Your task to perform on an android device: Go to battery settings Image 0: 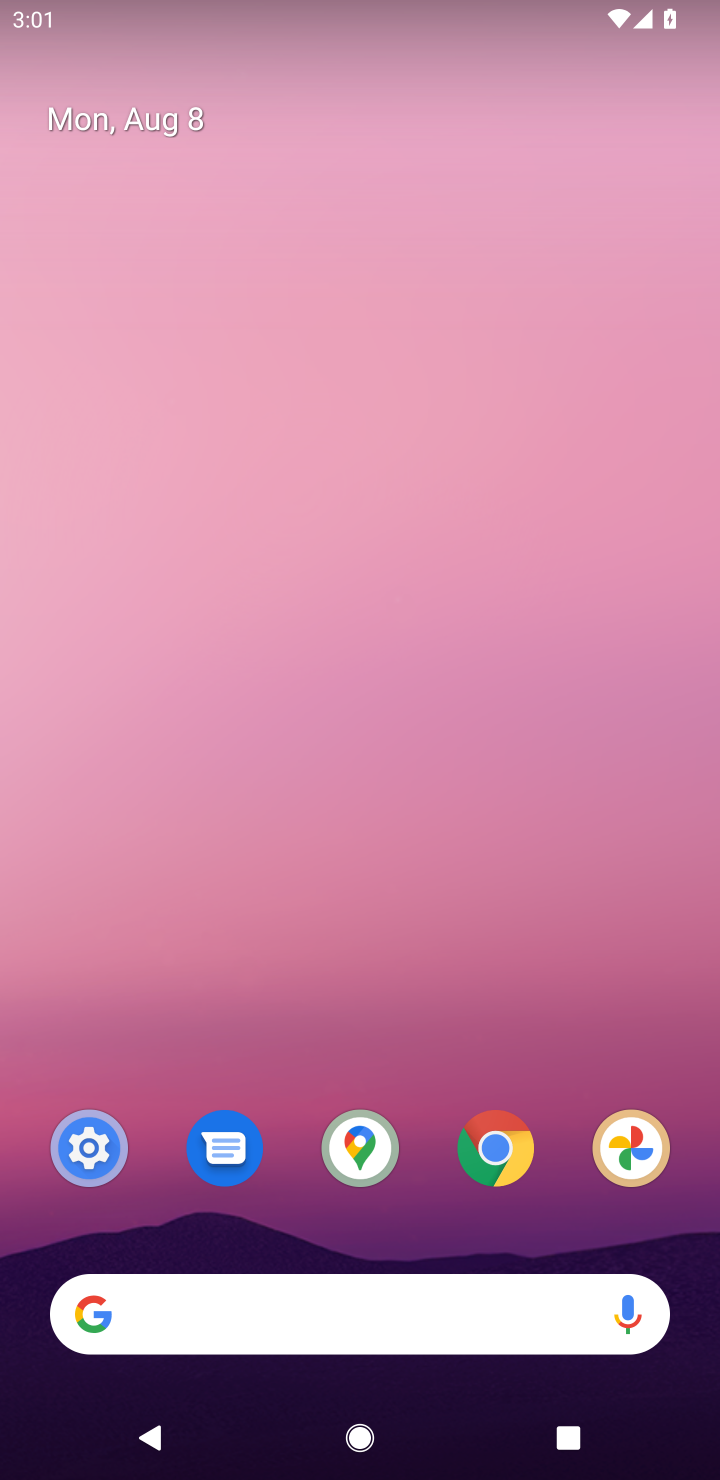
Step 0: click (97, 1149)
Your task to perform on an android device: Go to battery settings Image 1: 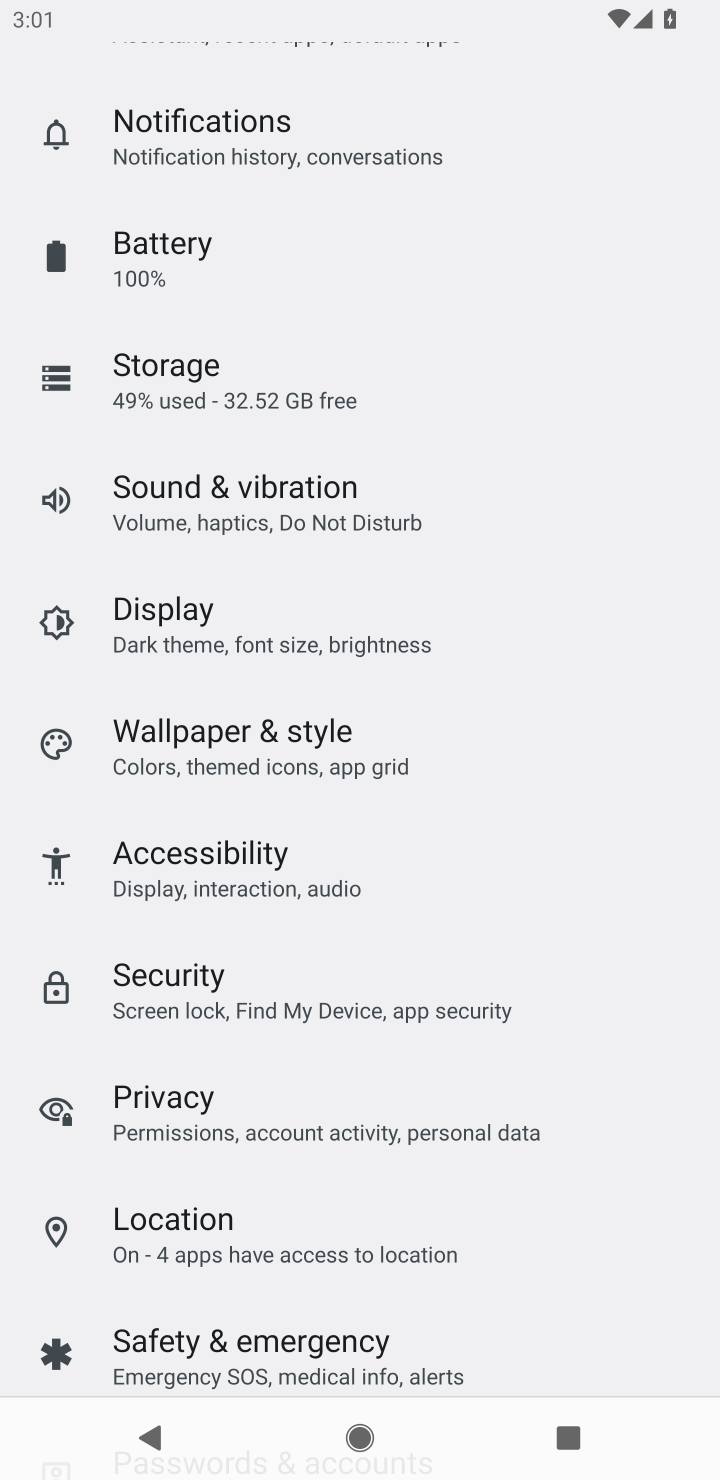
Step 1: click (281, 269)
Your task to perform on an android device: Go to battery settings Image 2: 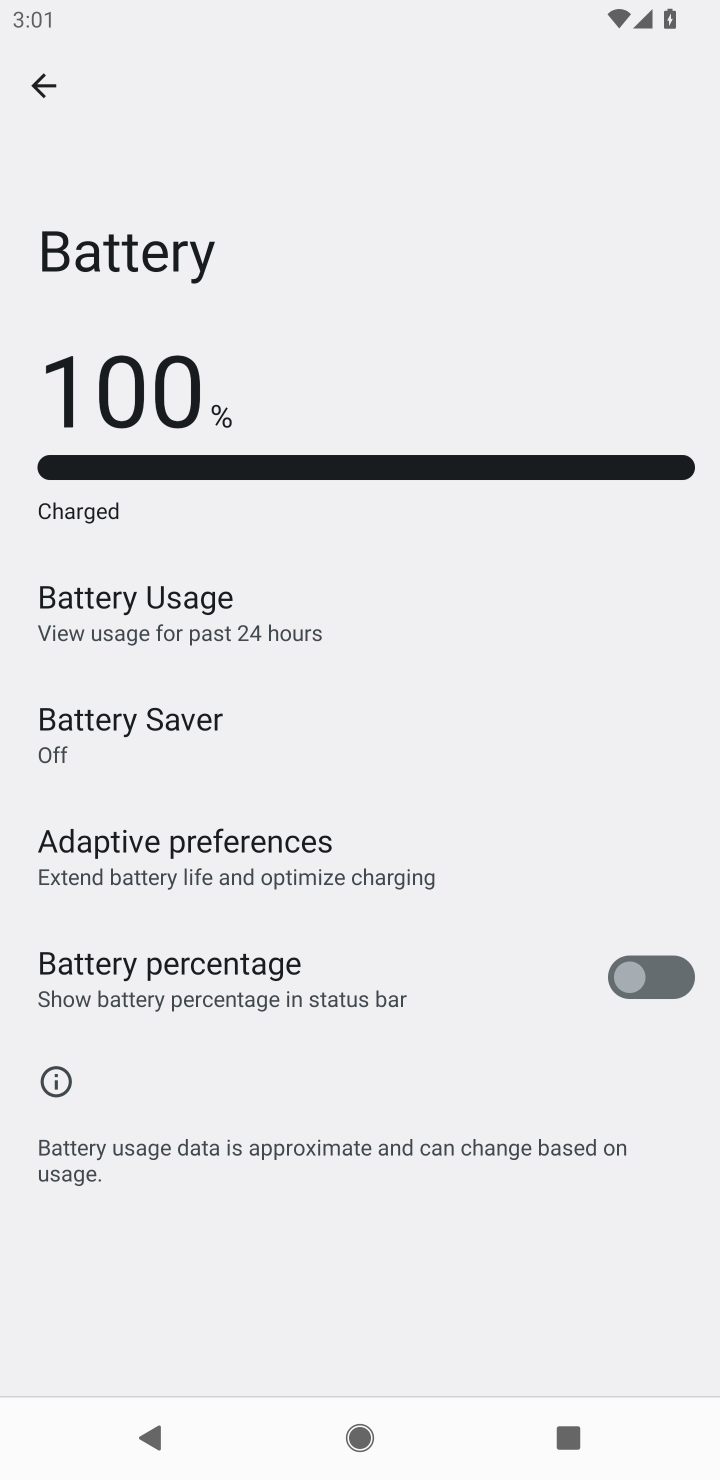
Step 2: task complete